Your task to perform on an android device: uninstall "Expedia: Hotels, Flights & Car" Image 0: 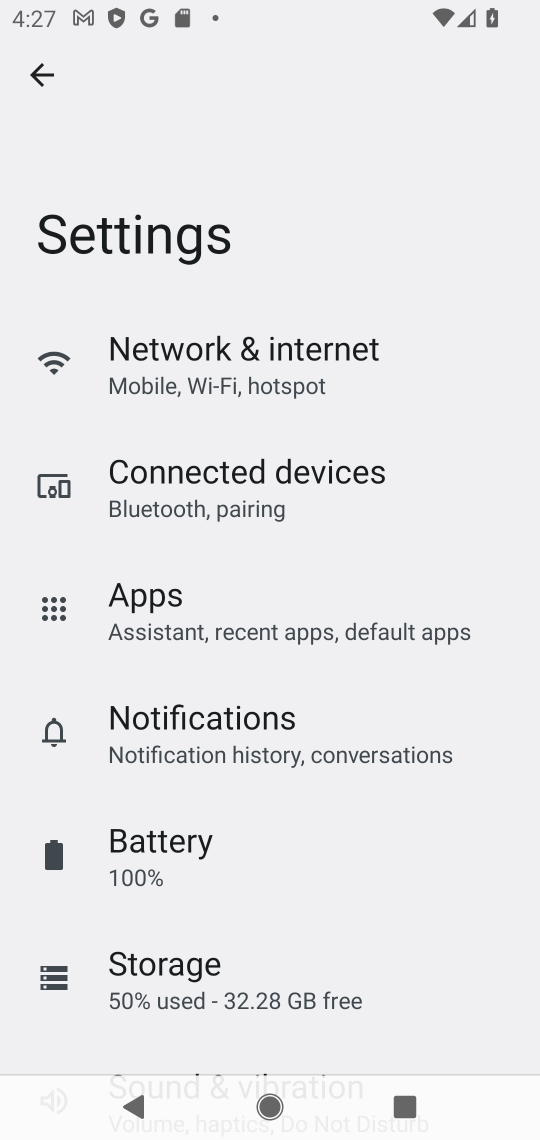
Step 0: press home button
Your task to perform on an android device: uninstall "Expedia: Hotels, Flights & Car" Image 1: 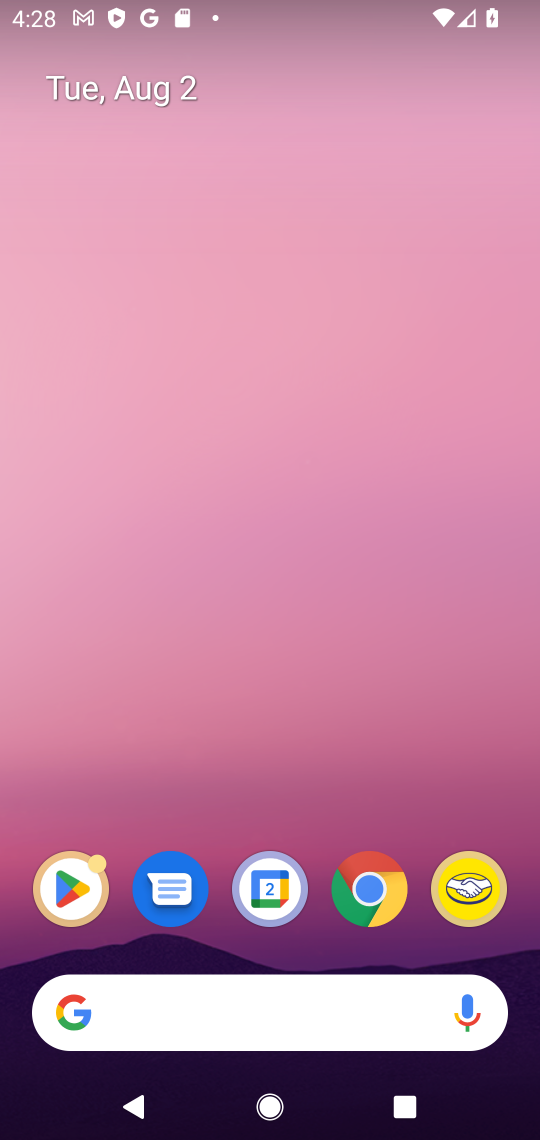
Step 1: drag from (420, 762) to (364, 328)
Your task to perform on an android device: uninstall "Expedia: Hotels, Flights & Car" Image 2: 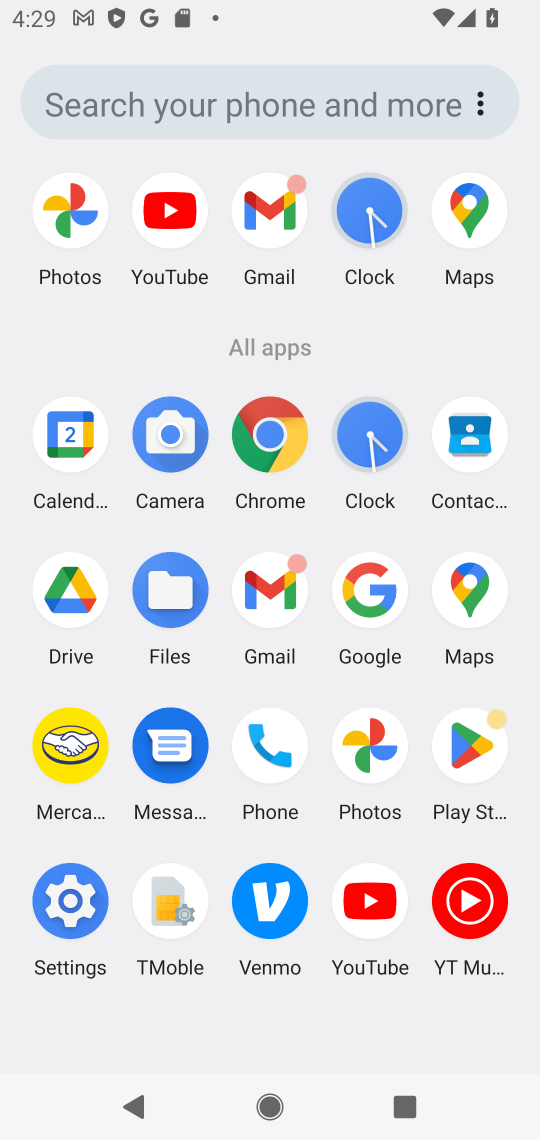
Step 2: click (365, 92)
Your task to perform on an android device: uninstall "Expedia: Hotels, Flights & Car" Image 3: 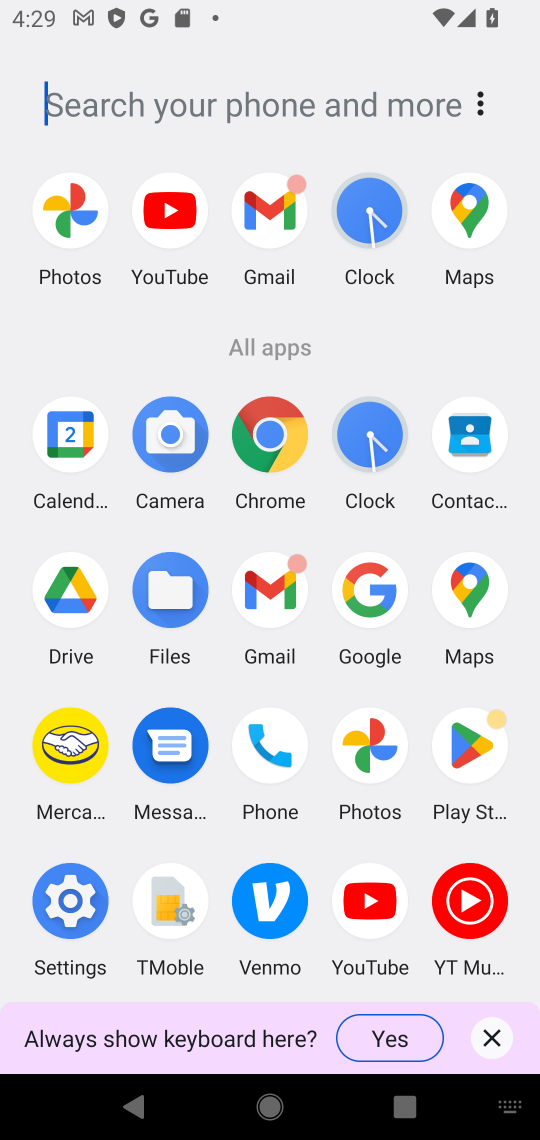
Step 3: click (495, 736)
Your task to perform on an android device: uninstall "Expedia: Hotels, Flights & Car" Image 4: 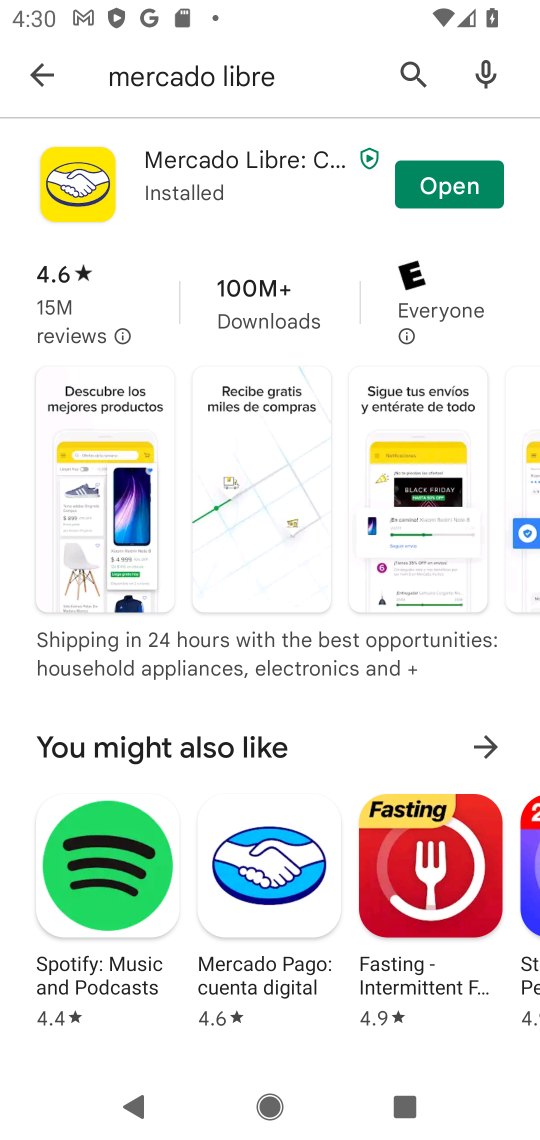
Step 4: click (406, 77)
Your task to perform on an android device: uninstall "Expedia: Hotels, Flights & Car" Image 5: 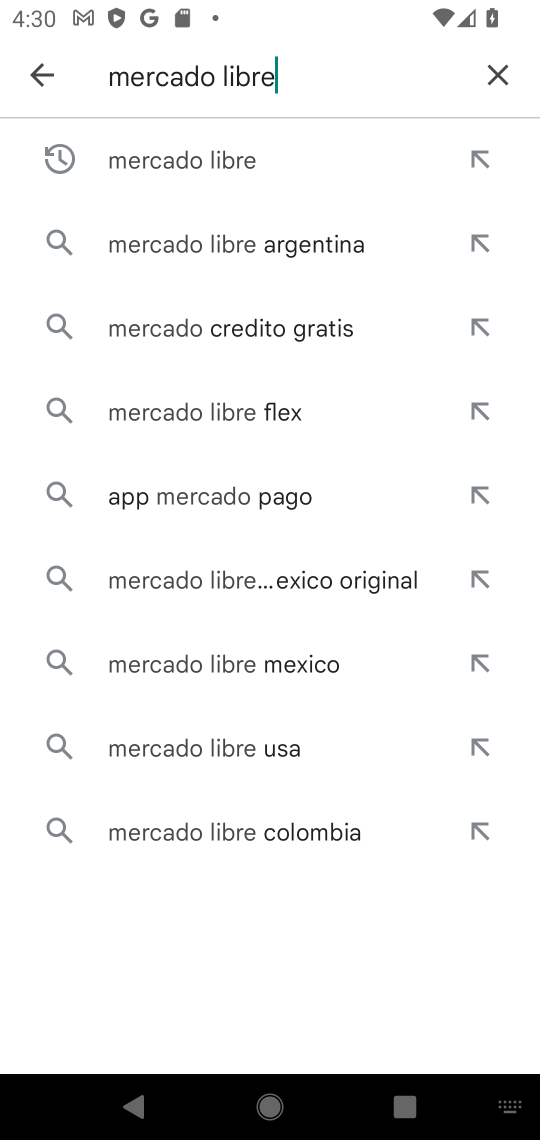
Step 5: click (487, 81)
Your task to perform on an android device: uninstall "Expedia: Hotels, Flights & Car" Image 6: 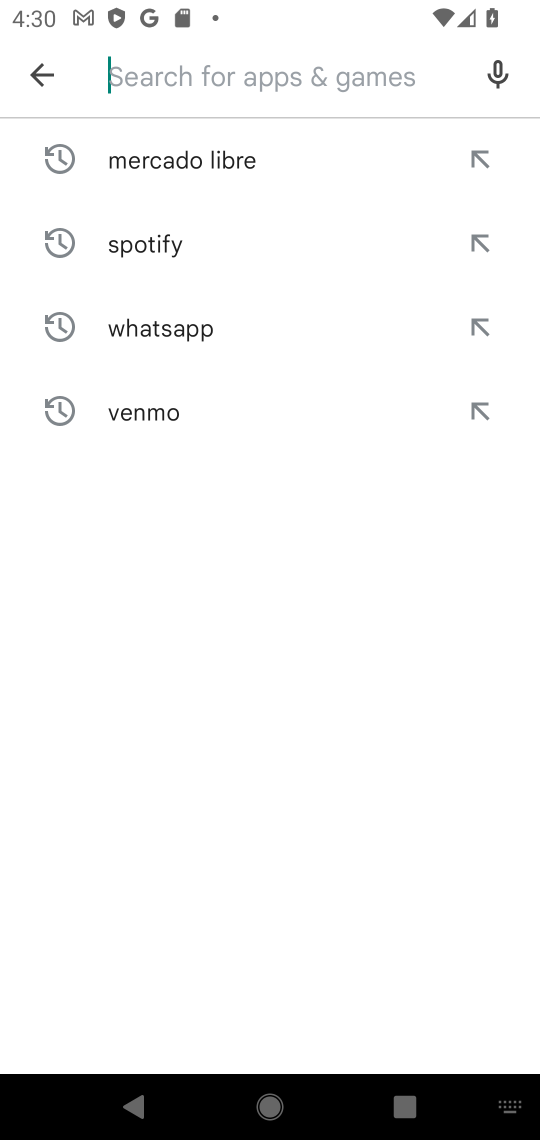
Step 6: click (350, 61)
Your task to perform on an android device: uninstall "Expedia: Hotels, Flights & Car" Image 7: 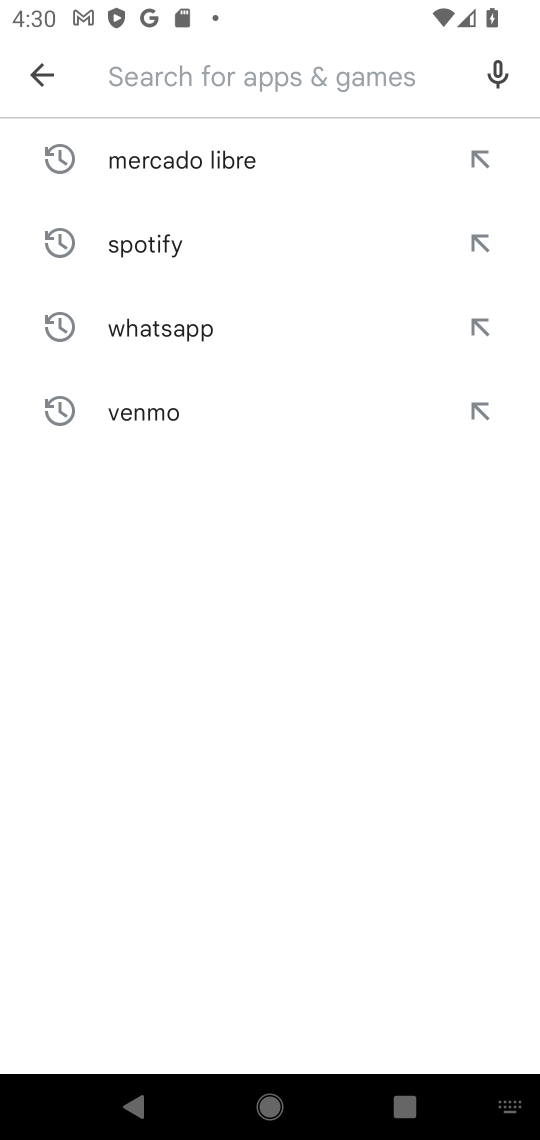
Step 7: type "expedia : hotels"
Your task to perform on an android device: uninstall "Expedia: Hotels, Flights & Car" Image 8: 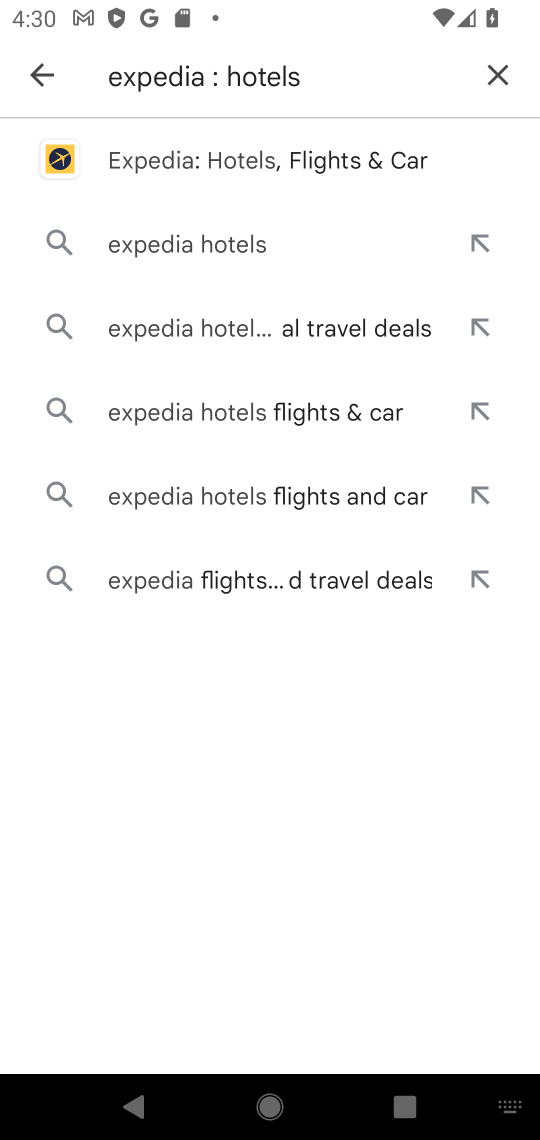
Step 8: click (249, 171)
Your task to perform on an android device: uninstall "Expedia: Hotels, Flights & Car" Image 9: 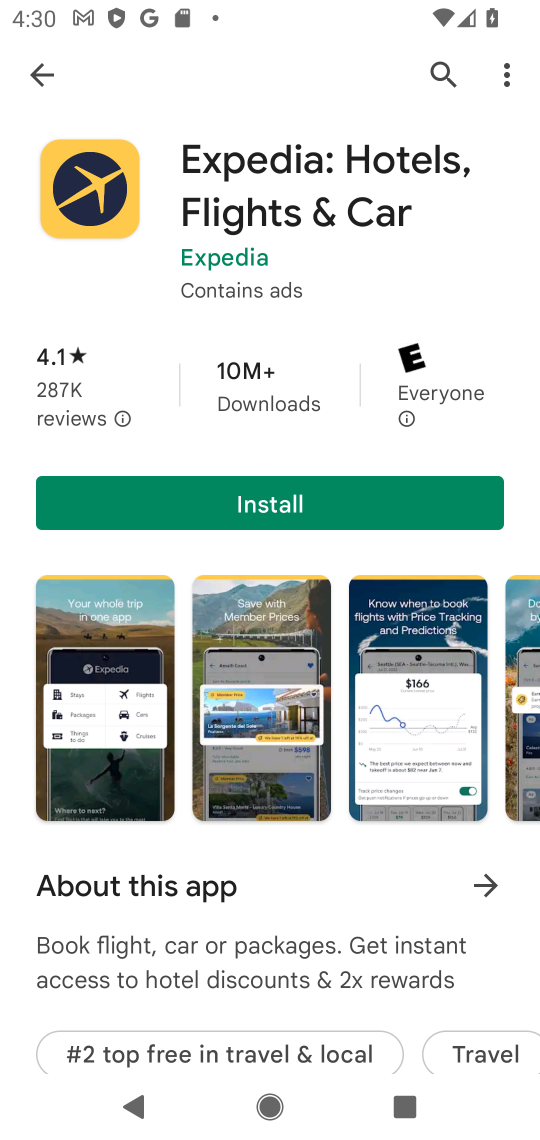
Step 9: task complete